Your task to perform on an android device: Open battery settings Image 0: 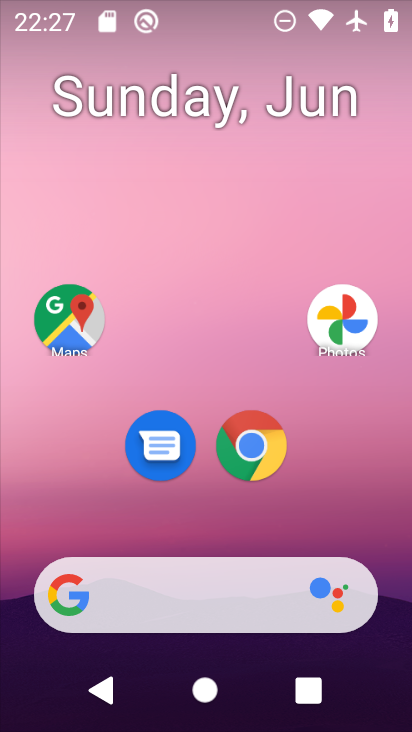
Step 0: drag from (190, 538) to (146, 22)
Your task to perform on an android device: Open battery settings Image 1: 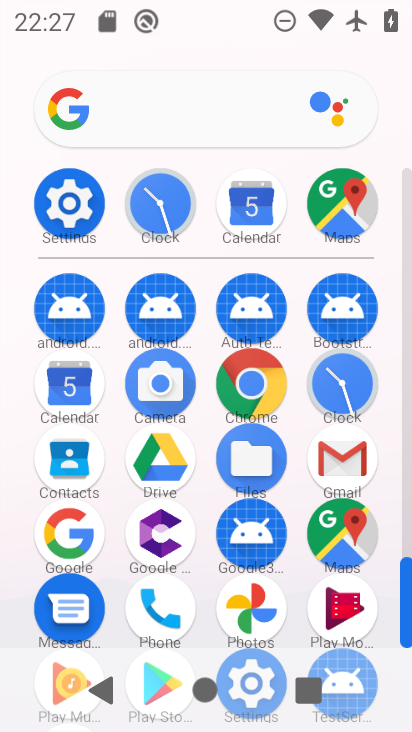
Step 1: click (64, 197)
Your task to perform on an android device: Open battery settings Image 2: 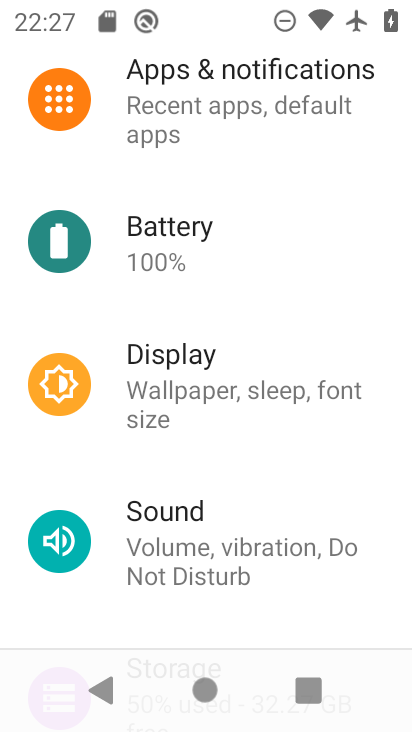
Step 2: click (168, 242)
Your task to perform on an android device: Open battery settings Image 3: 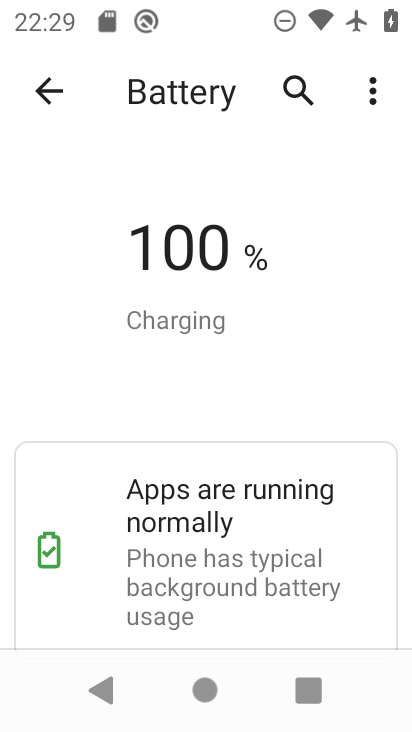
Step 3: task complete